Your task to perform on an android device: Search for vegetarian restaurants on Maps Image 0: 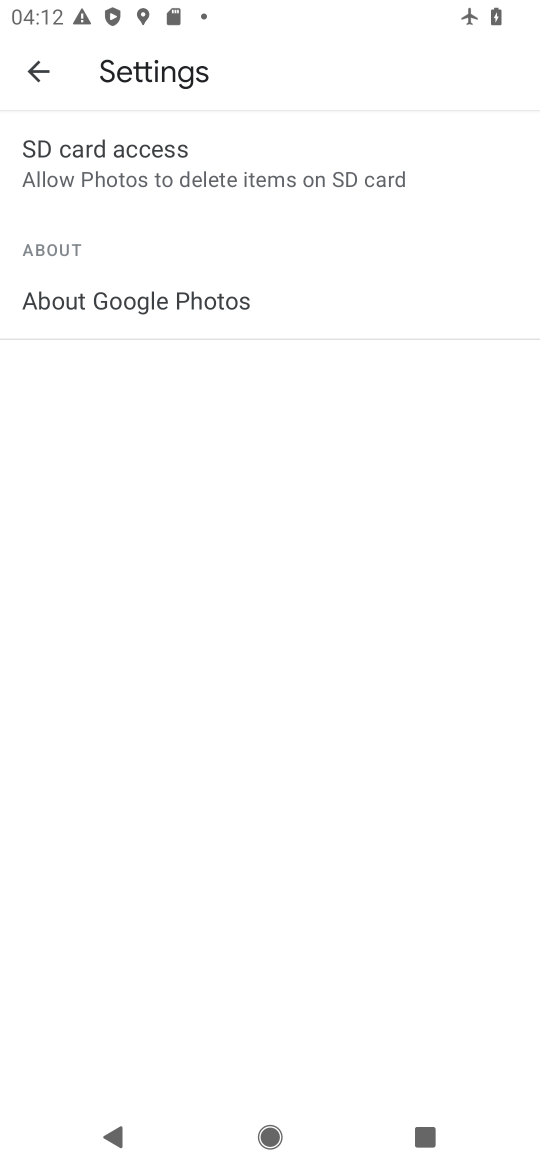
Step 0: press home button
Your task to perform on an android device: Search for vegetarian restaurants on Maps Image 1: 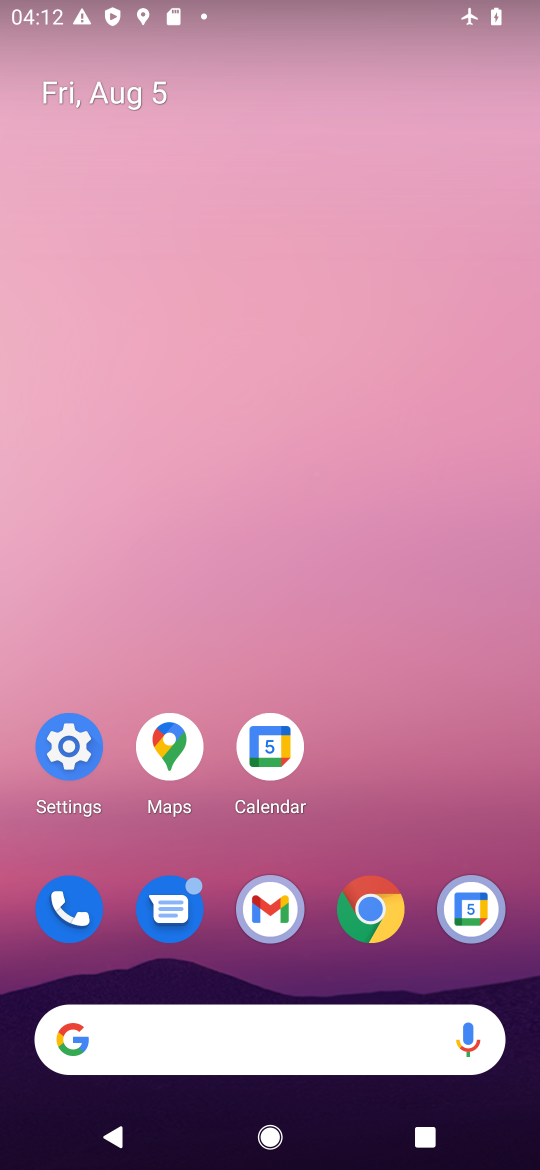
Step 1: click (174, 748)
Your task to perform on an android device: Search for vegetarian restaurants on Maps Image 2: 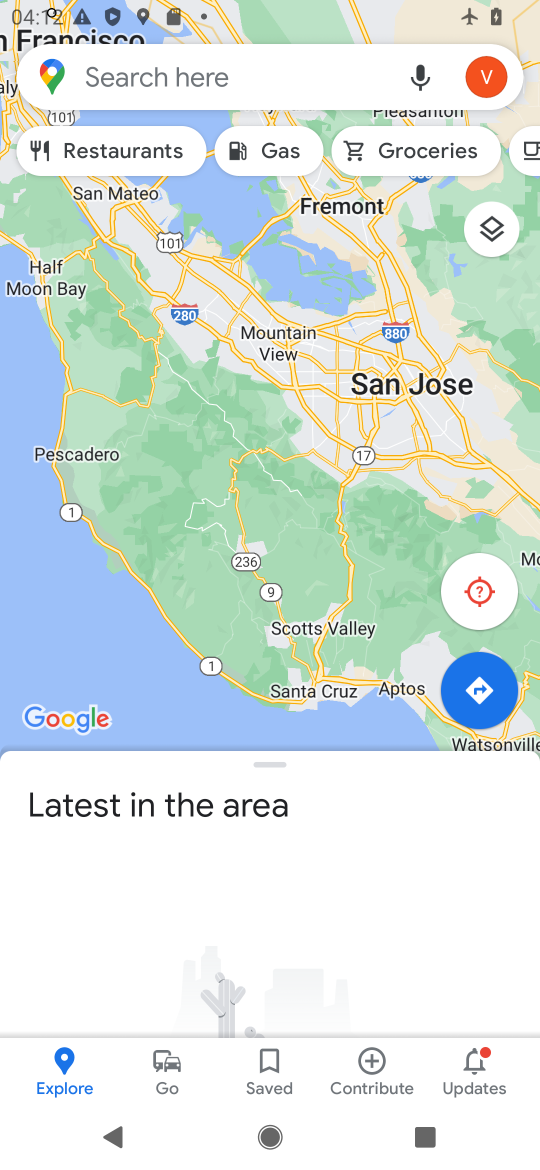
Step 2: click (217, 78)
Your task to perform on an android device: Search for vegetarian restaurants on Maps Image 3: 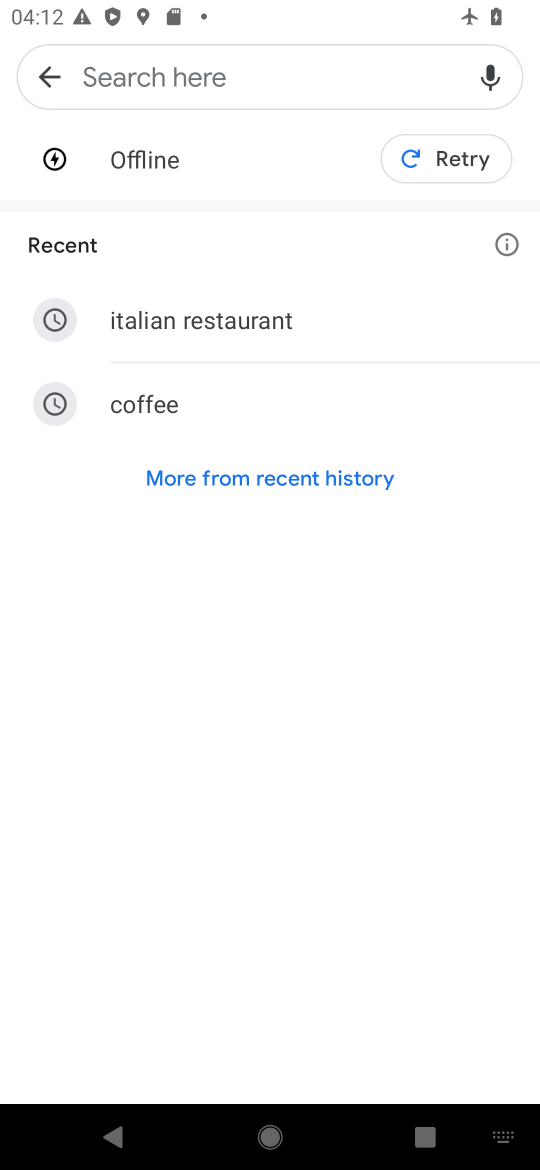
Step 3: click (184, 470)
Your task to perform on an android device: Search for vegetarian restaurants on Maps Image 4: 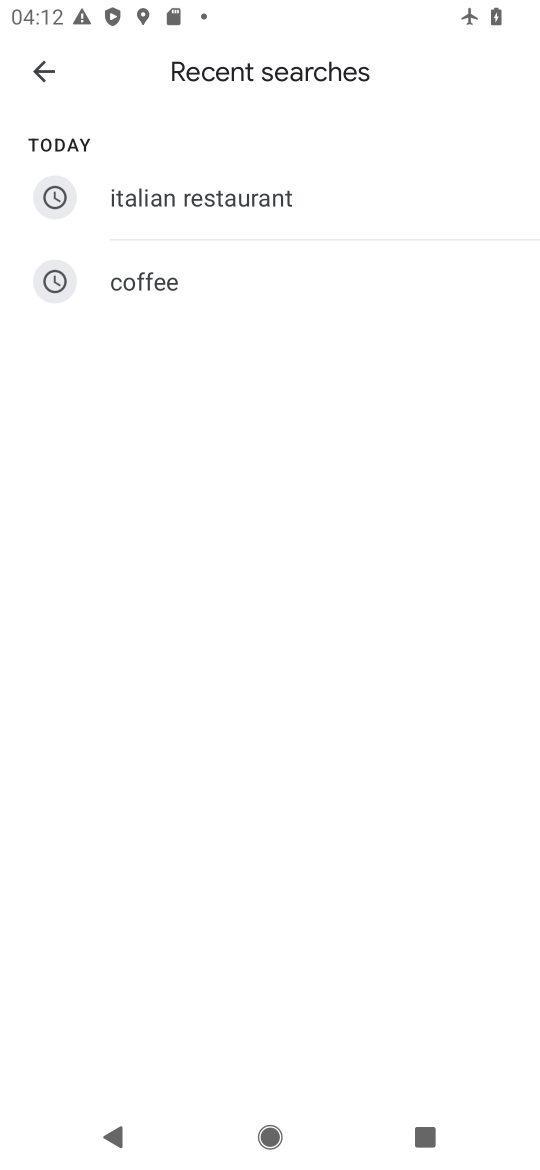
Step 4: click (44, 71)
Your task to perform on an android device: Search for vegetarian restaurants on Maps Image 5: 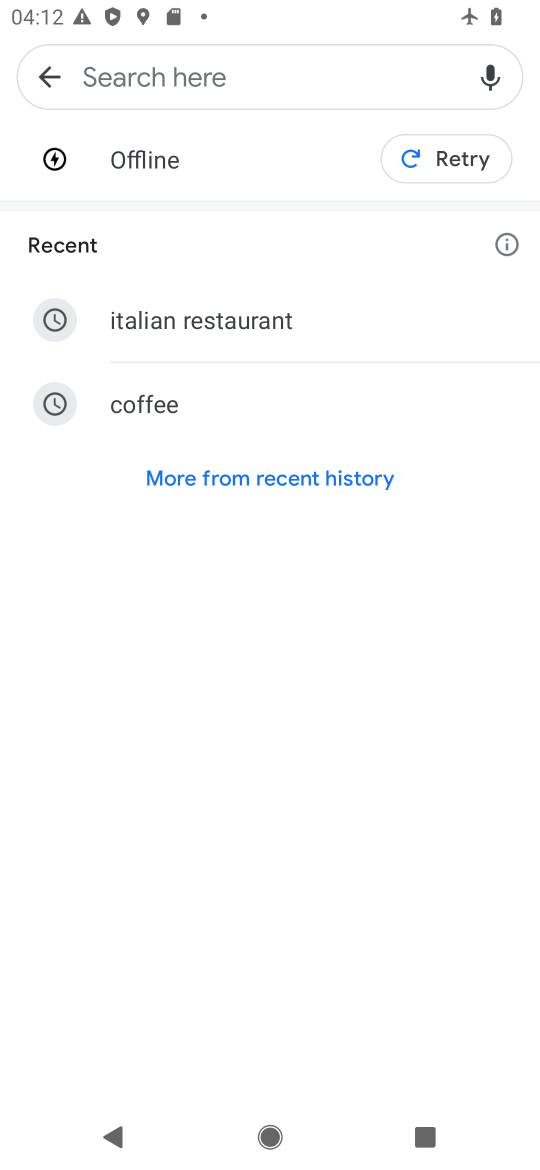
Step 5: type "vegetarian restaurants"
Your task to perform on an android device: Search for vegetarian restaurants on Maps Image 6: 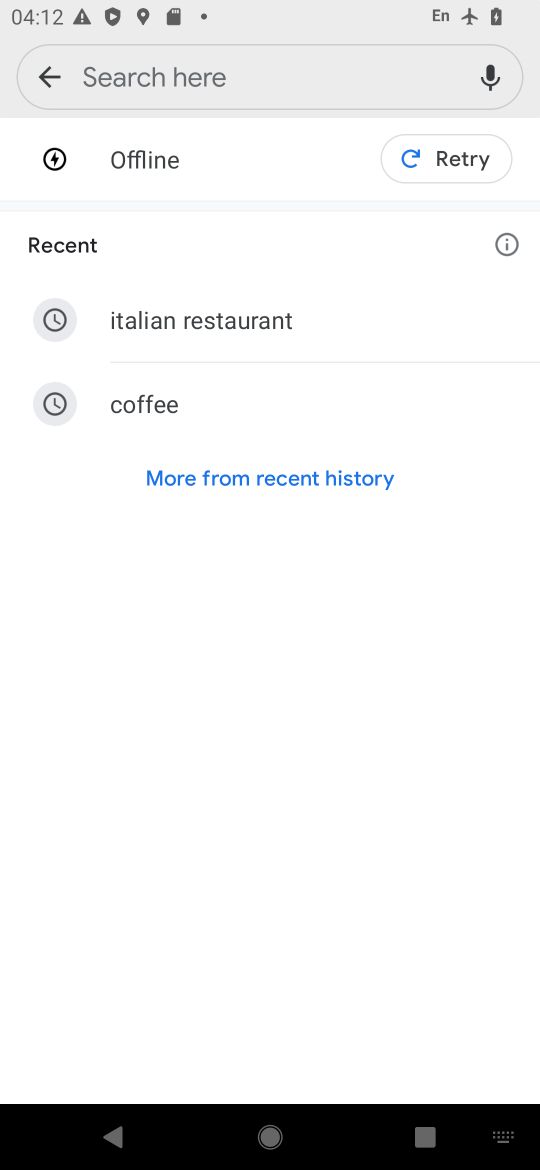
Step 6: click (194, 67)
Your task to perform on an android device: Search for vegetarian restaurants on Maps Image 7: 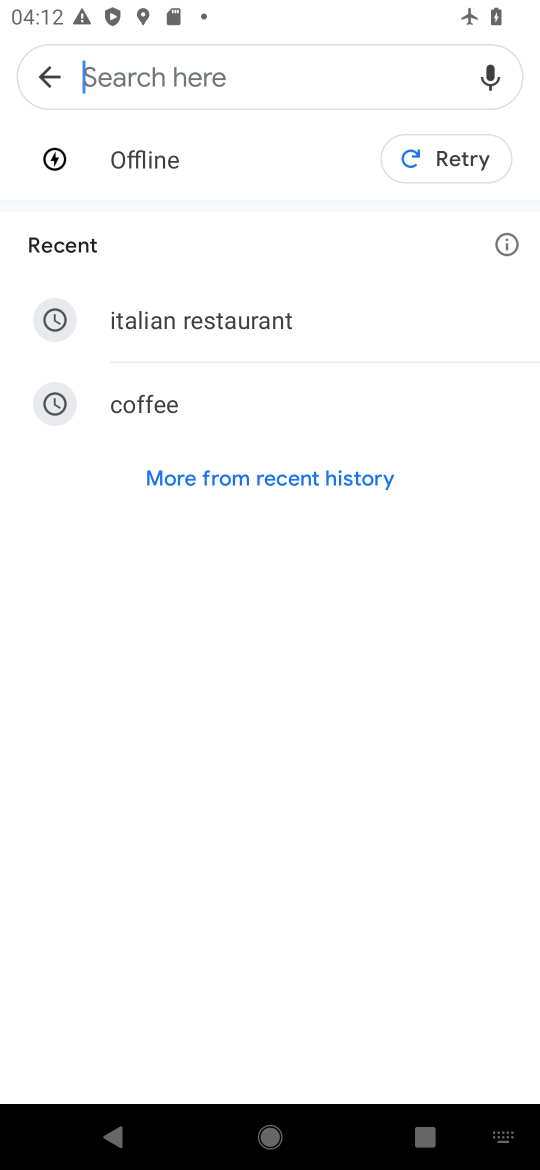
Step 7: type "vegetarian restaurants"
Your task to perform on an android device: Search for vegetarian restaurants on Maps Image 8: 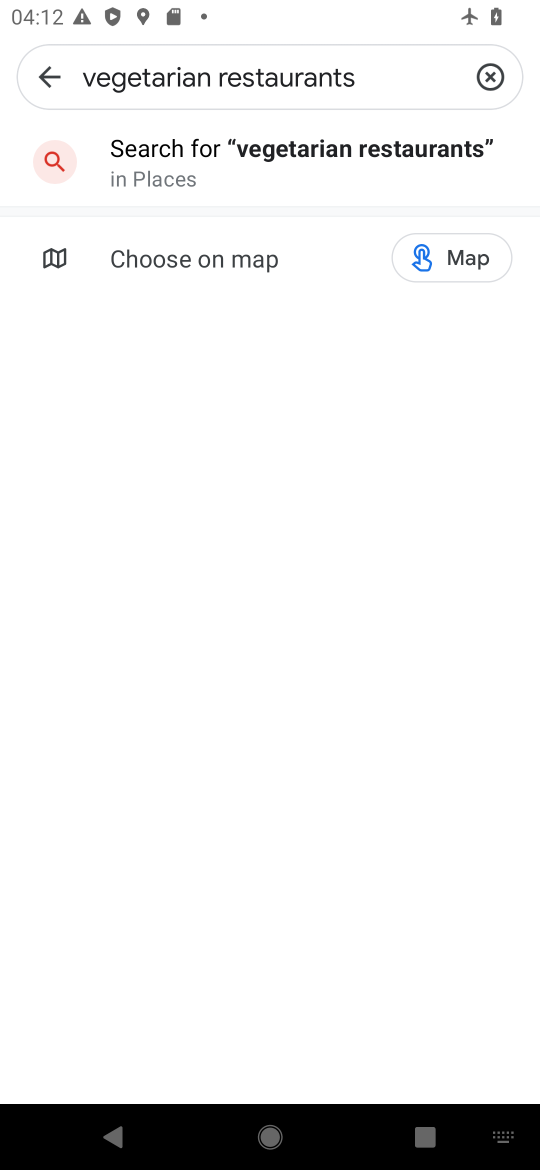
Step 8: click (276, 147)
Your task to perform on an android device: Search for vegetarian restaurants on Maps Image 9: 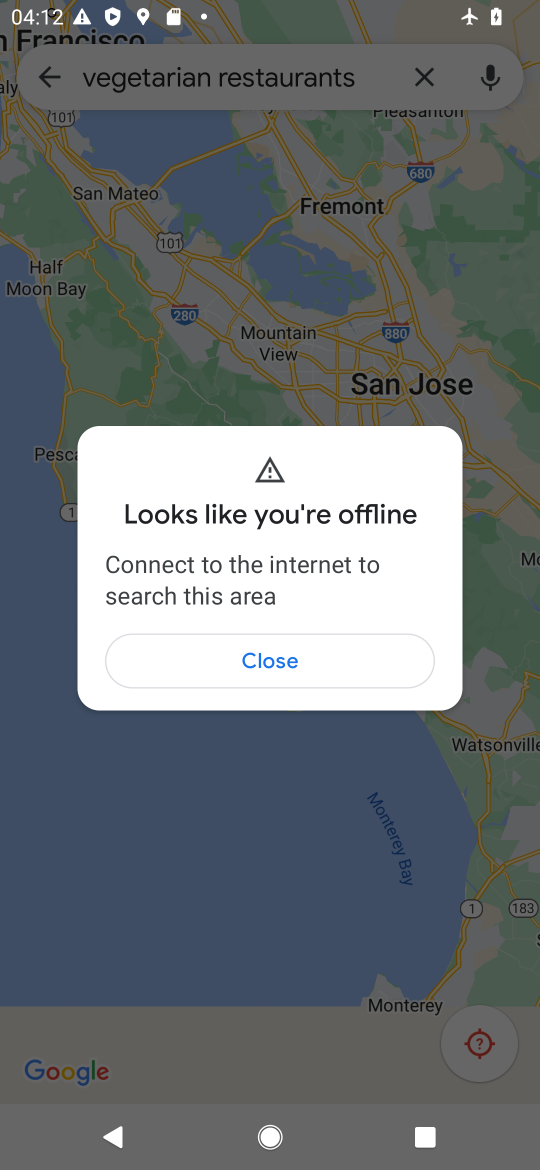
Step 9: click (259, 662)
Your task to perform on an android device: Search for vegetarian restaurants on Maps Image 10: 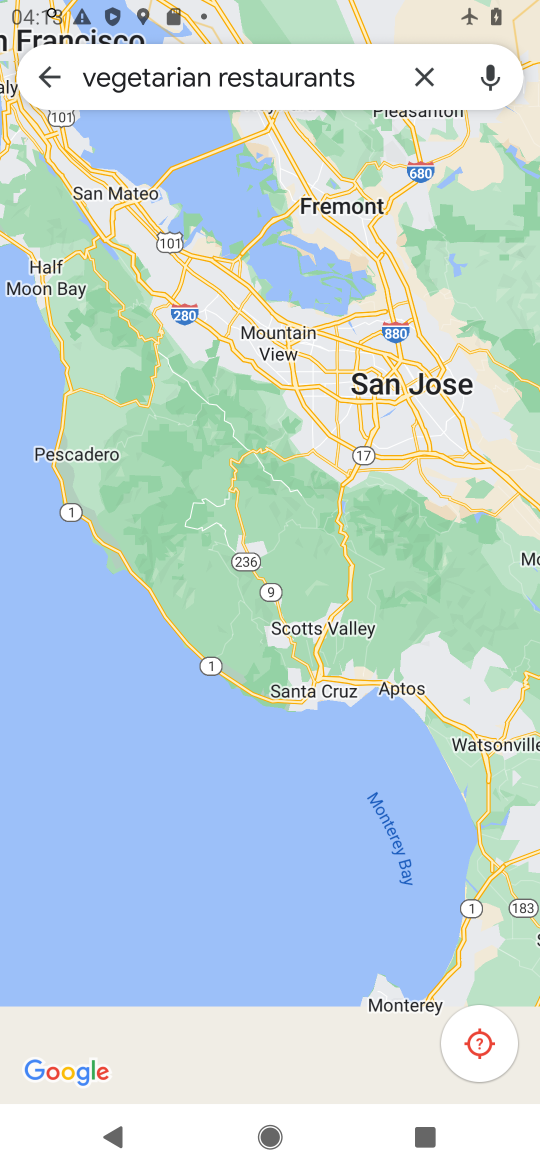
Step 10: task complete